Your task to perform on an android device: turn off translation in the chrome app Image 0: 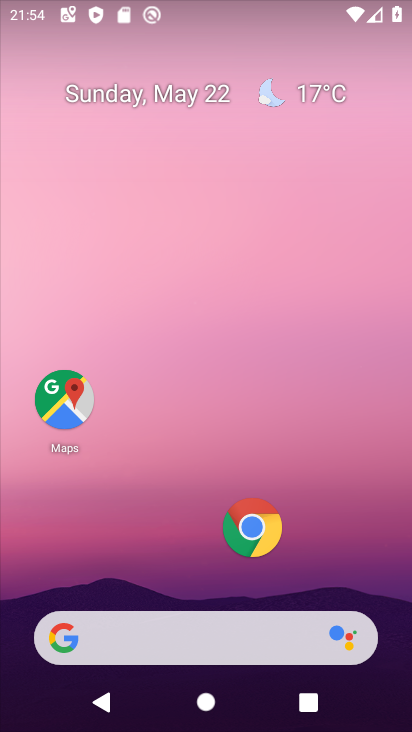
Step 0: click (251, 529)
Your task to perform on an android device: turn off translation in the chrome app Image 1: 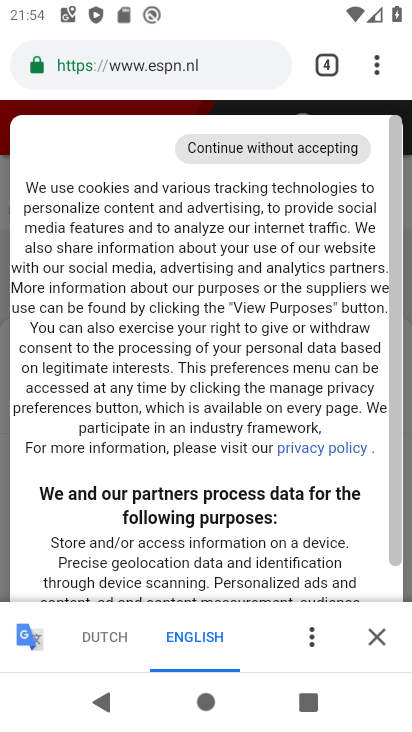
Step 1: click (378, 58)
Your task to perform on an android device: turn off translation in the chrome app Image 2: 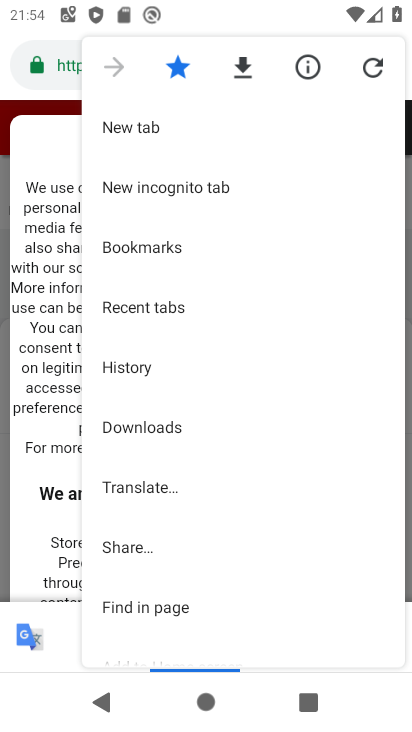
Step 2: drag from (196, 521) to (162, 167)
Your task to perform on an android device: turn off translation in the chrome app Image 3: 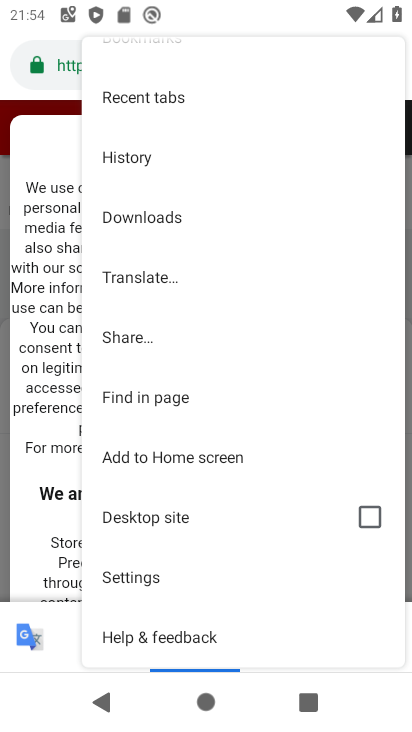
Step 3: click (132, 577)
Your task to perform on an android device: turn off translation in the chrome app Image 4: 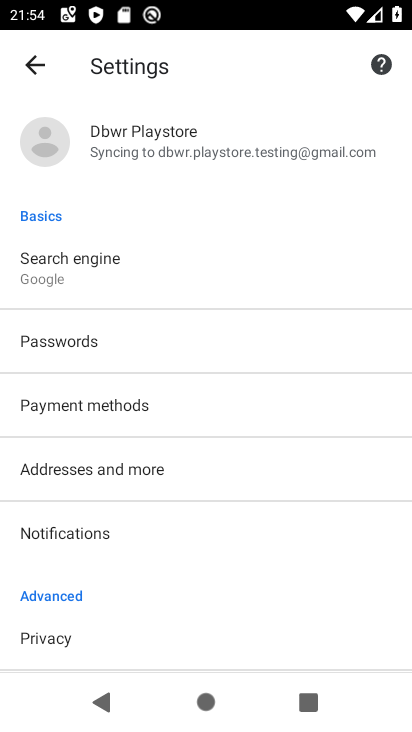
Step 4: drag from (154, 535) to (114, 167)
Your task to perform on an android device: turn off translation in the chrome app Image 5: 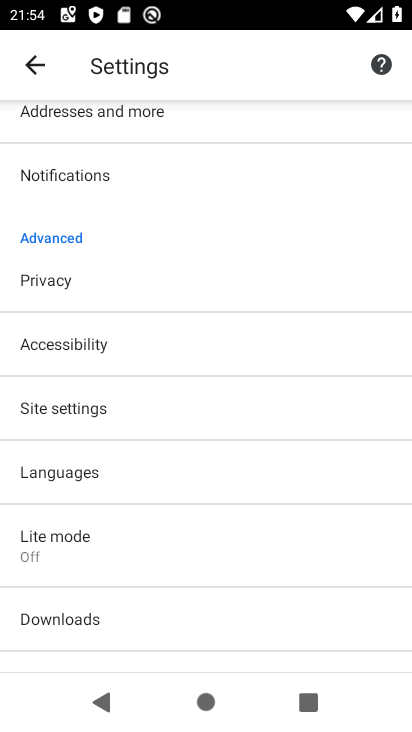
Step 5: click (63, 472)
Your task to perform on an android device: turn off translation in the chrome app Image 6: 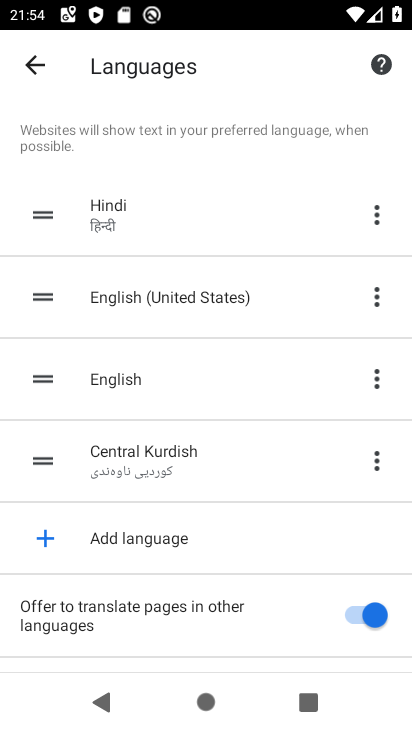
Step 6: click (369, 614)
Your task to perform on an android device: turn off translation in the chrome app Image 7: 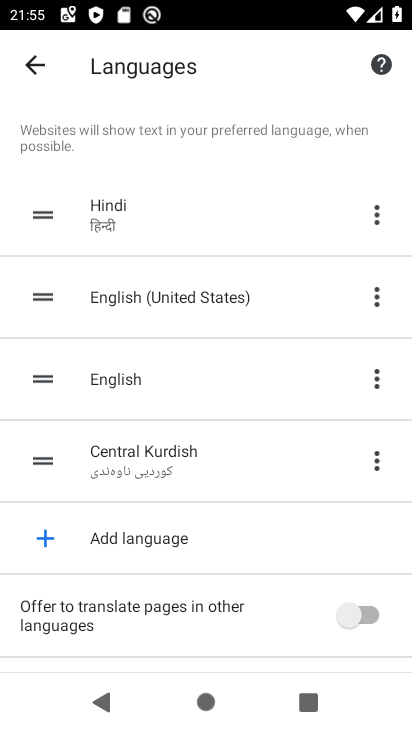
Step 7: task complete